Your task to perform on an android device: What's the weather going to be this weekend? Image 0: 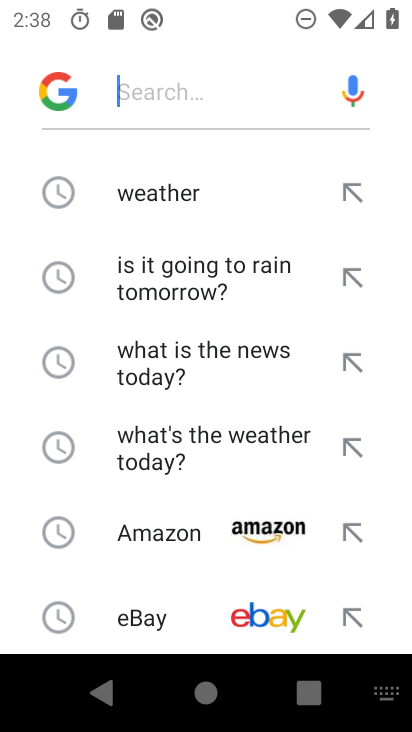
Step 0: press home button
Your task to perform on an android device: What's the weather going to be this weekend? Image 1: 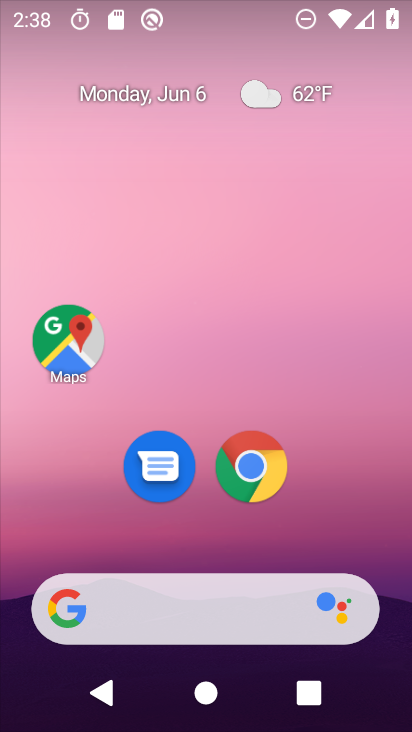
Step 1: drag from (217, 556) to (184, 75)
Your task to perform on an android device: What's the weather going to be this weekend? Image 2: 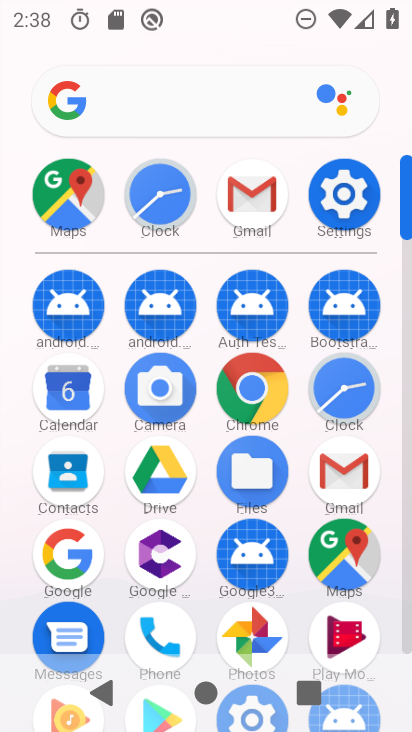
Step 2: click (80, 555)
Your task to perform on an android device: What's the weather going to be this weekend? Image 3: 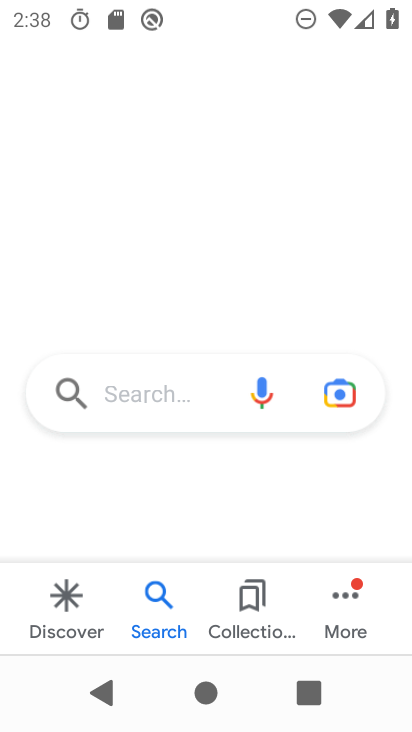
Step 3: click (153, 387)
Your task to perform on an android device: What's the weather going to be this weekend? Image 4: 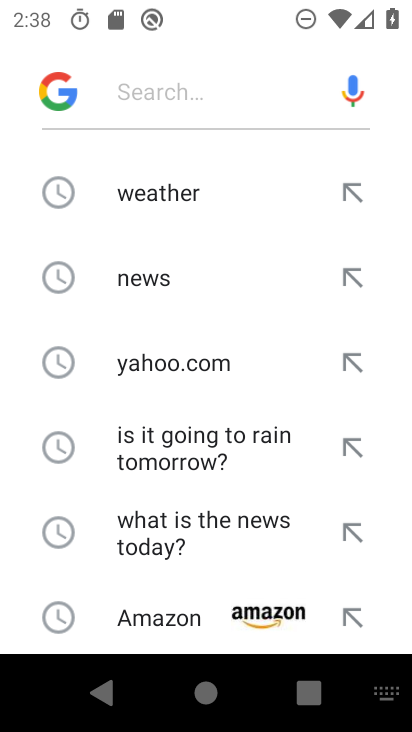
Step 4: click (163, 199)
Your task to perform on an android device: What's the weather going to be this weekend? Image 5: 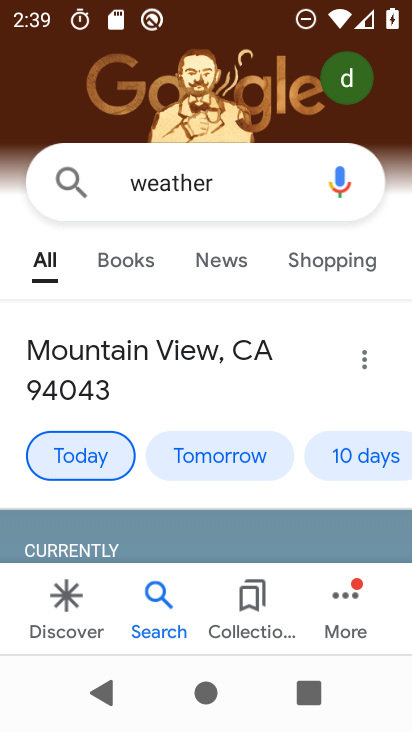
Step 5: click (360, 455)
Your task to perform on an android device: What's the weather going to be this weekend? Image 6: 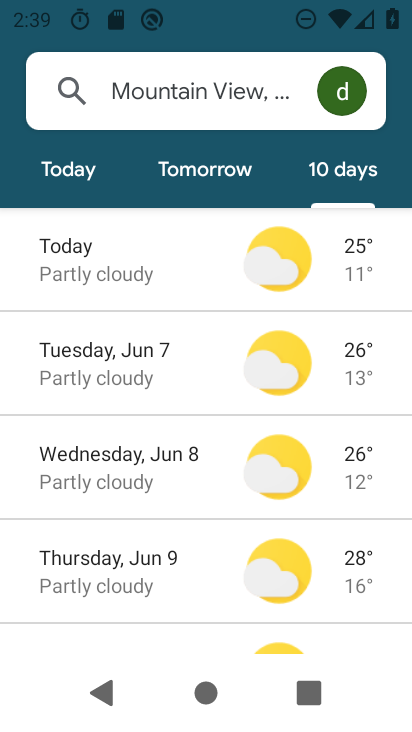
Step 6: task complete